Your task to perform on an android device: Go to network settings Image 0: 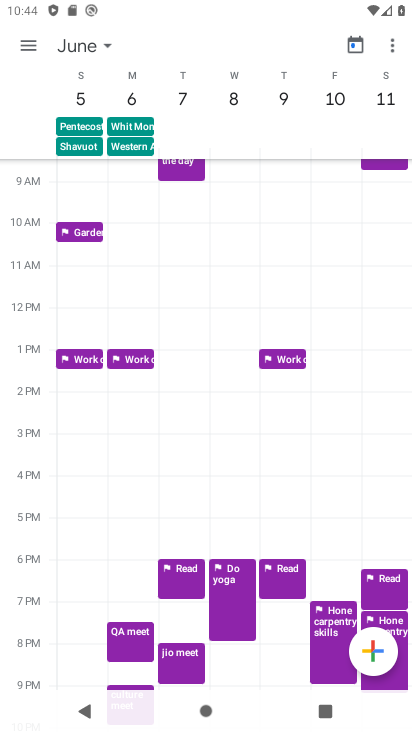
Step 0: press home button
Your task to perform on an android device: Go to network settings Image 1: 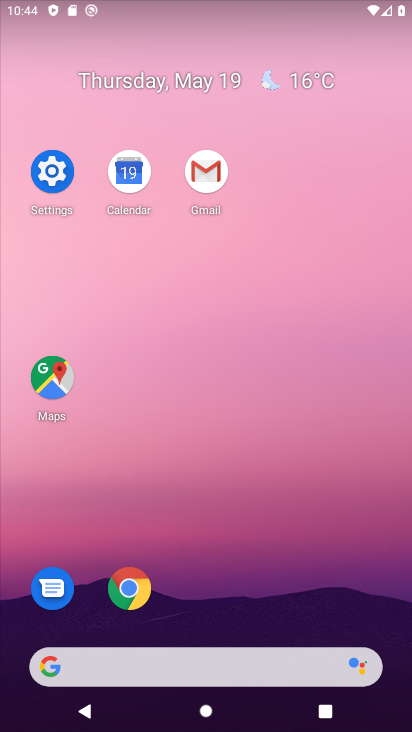
Step 1: click (60, 162)
Your task to perform on an android device: Go to network settings Image 2: 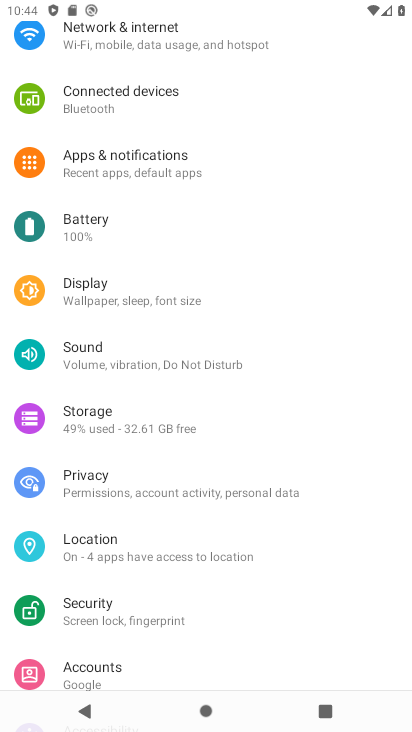
Step 2: click (254, 63)
Your task to perform on an android device: Go to network settings Image 3: 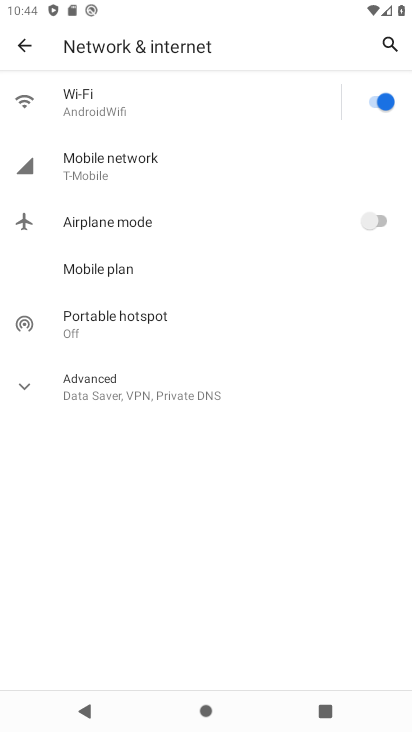
Step 3: task complete